Your task to perform on an android device: Open ESPN.com Image 0: 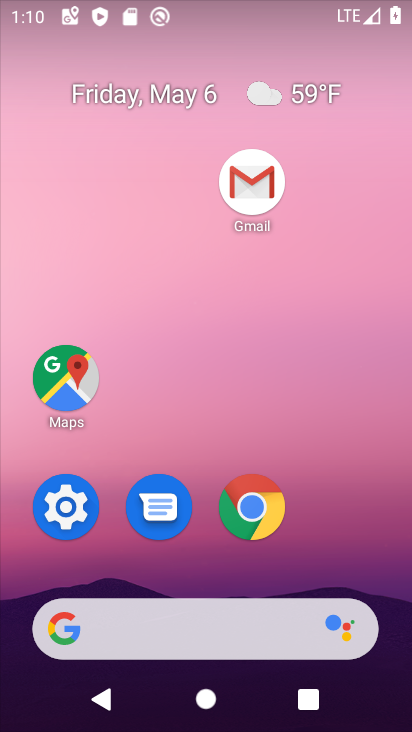
Step 0: click (260, 505)
Your task to perform on an android device: Open ESPN.com Image 1: 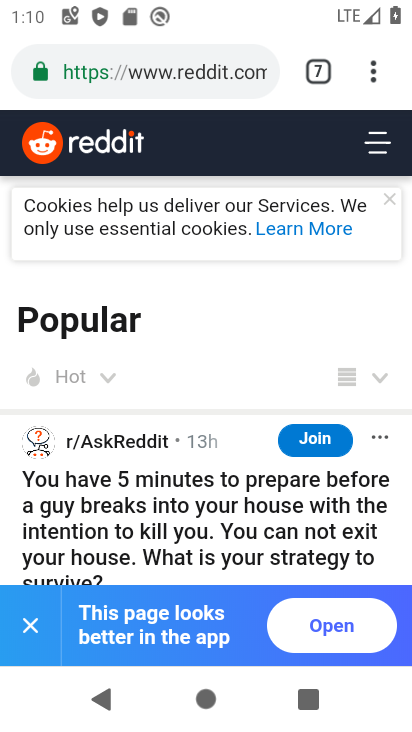
Step 1: click (372, 75)
Your task to perform on an android device: Open ESPN.com Image 2: 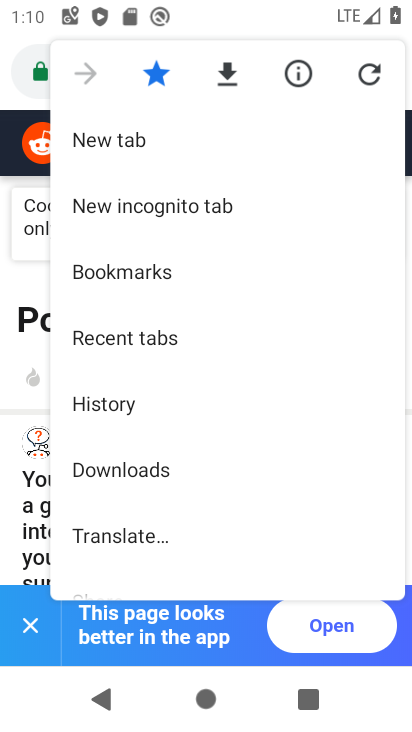
Step 2: click (120, 136)
Your task to perform on an android device: Open ESPN.com Image 3: 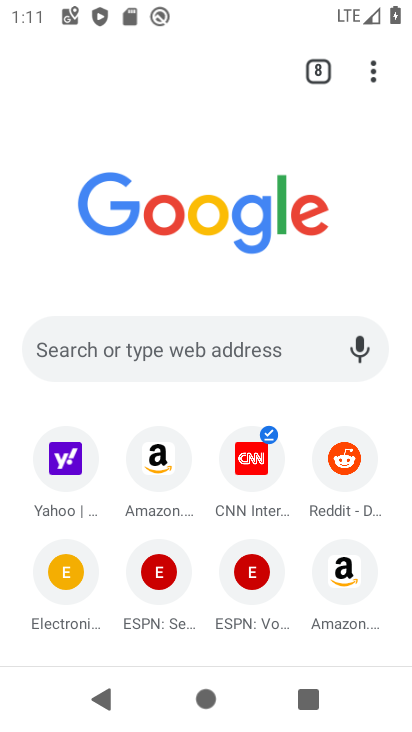
Step 3: click (133, 341)
Your task to perform on an android device: Open ESPN.com Image 4: 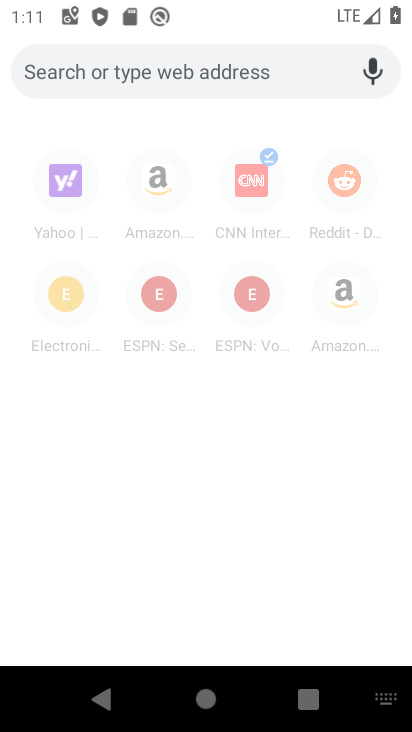
Step 4: type "espn.com"
Your task to perform on an android device: Open ESPN.com Image 5: 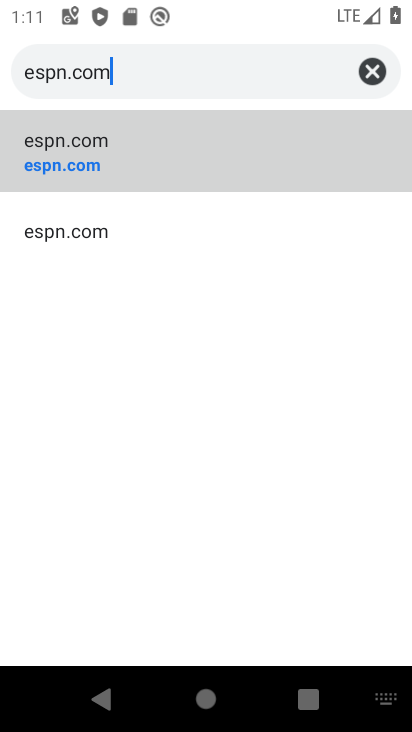
Step 5: click (114, 164)
Your task to perform on an android device: Open ESPN.com Image 6: 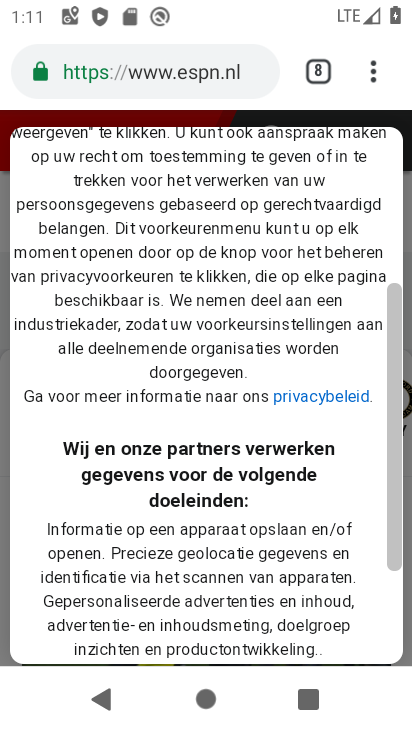
Step 6: task complete